Your task to perform on an android device: Open calendar and show me the third week of next month Image 0: 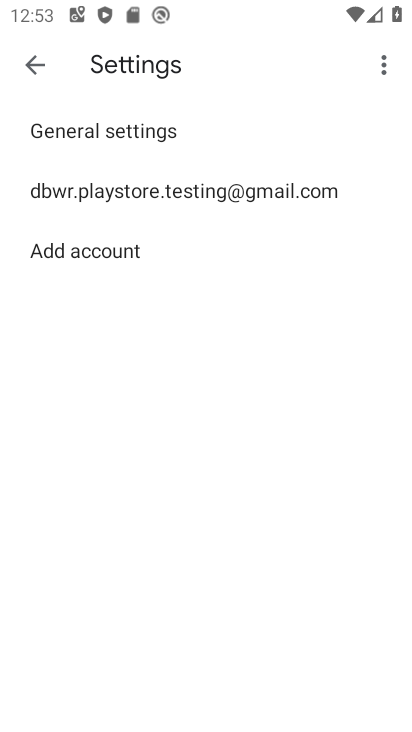
Step 0: press home button
Your task to perform on an android device: Open calendar and show me the third week of next month Image 1: 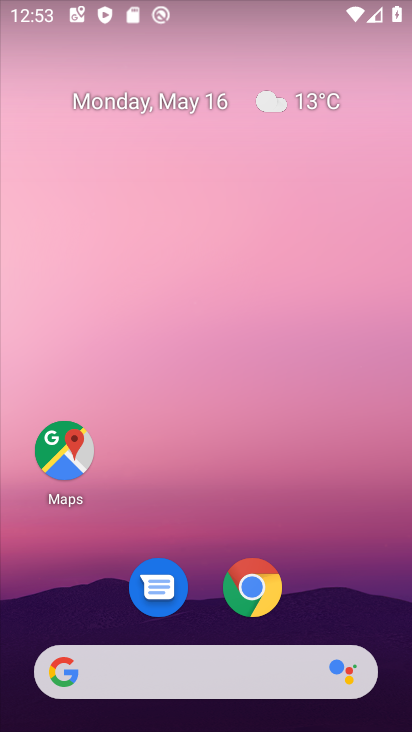
Step 1: drag from (198, 724) to (197, 173)
Your task to perform on an android device: Open calendar and show me the third week of next month Image 2: 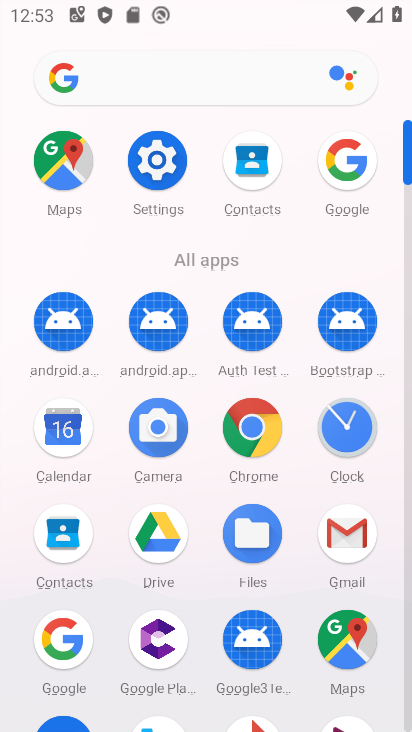
Step 2: click (60, 431)
Your task to perform on an android device: Open calendar and show me the third week of next month Image 3: 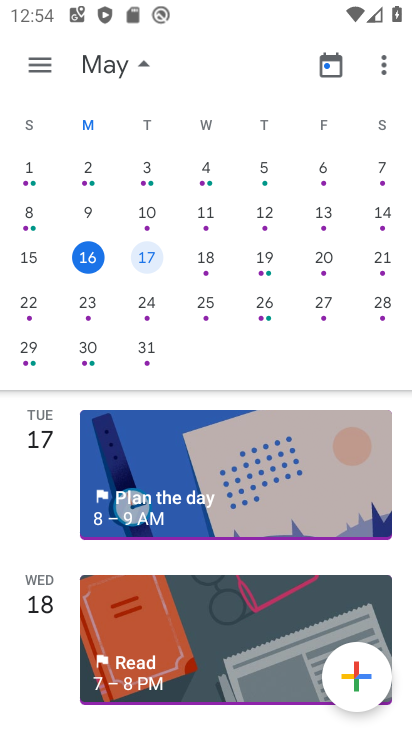
Step 3: drag from (350, 226) to (16, 253)
Your task to perform on an android device: Open calendar and show me the third week of next month Image 4: 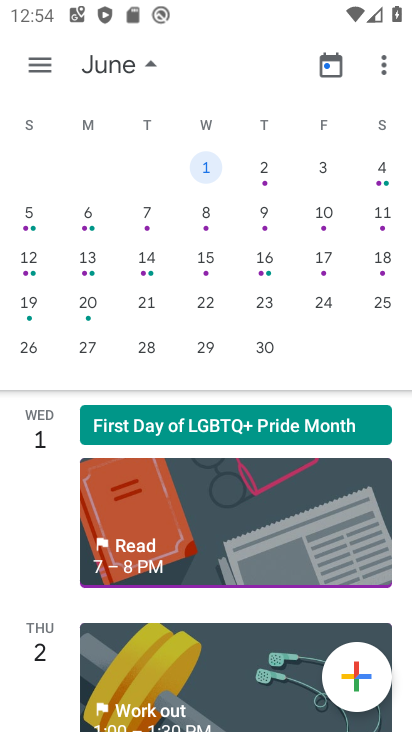
Step 4: click (88, 299)
Your task to perform on an android device: Open calendar and show me the third week of next month Image 5: 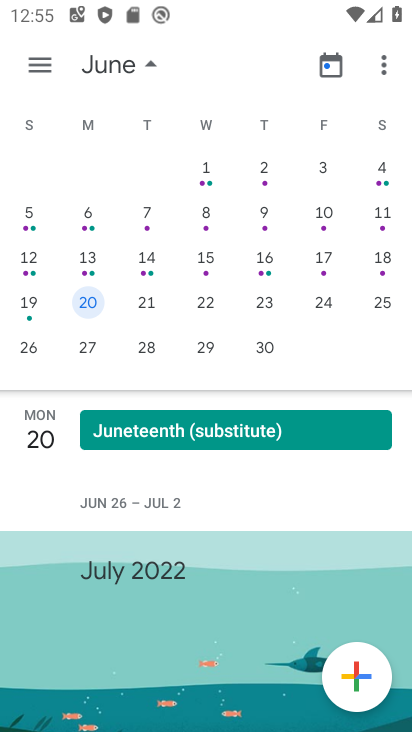
Step 5: click (36, 58)
Your task to perform on an android device: Open calendar and show me the third week of next month Image 6: 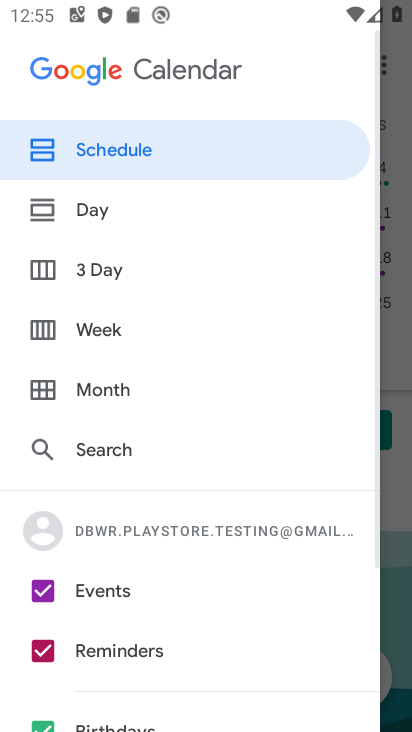
Step 6: click (105, 330)
Your task to perform on an android device: Open calendar and show me the third week of next month Image 7: 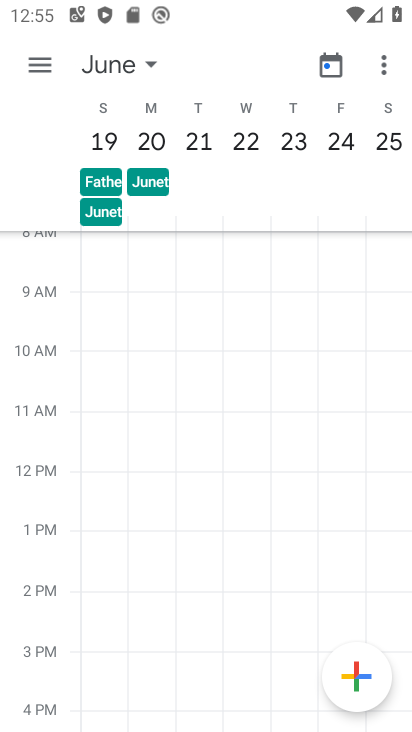
Step 7: task complete